Your task to perform on an android device: all mails in gmail Image 0: 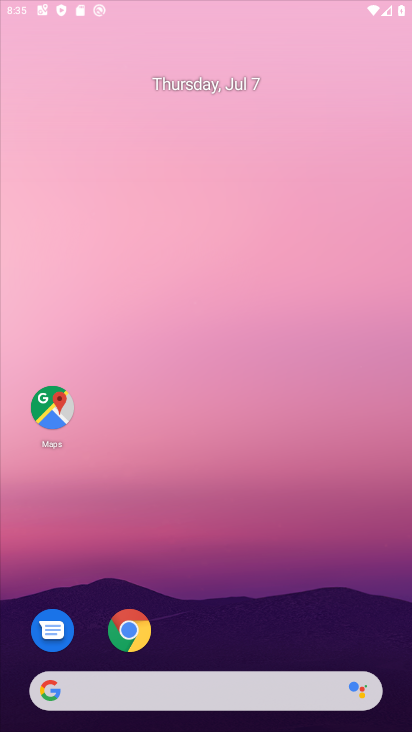
Step 0: drag from (230, 144) to (306, 181)
Your task to perform on an android device: all mails in gmail Image 1: 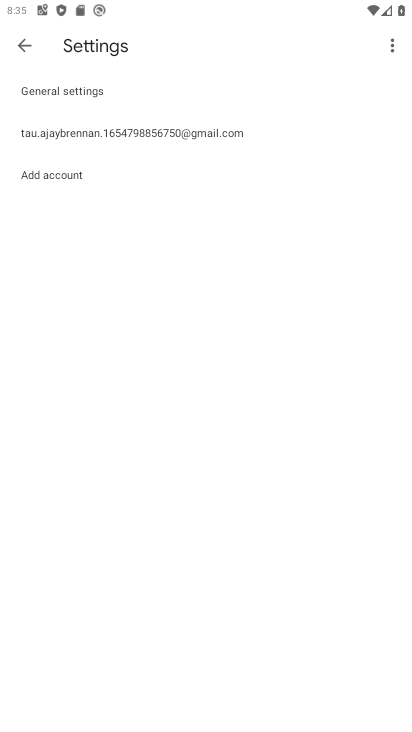
Step 1: click (32, 55)
Your task to perform on an android device: all mails in gmail Image 2: 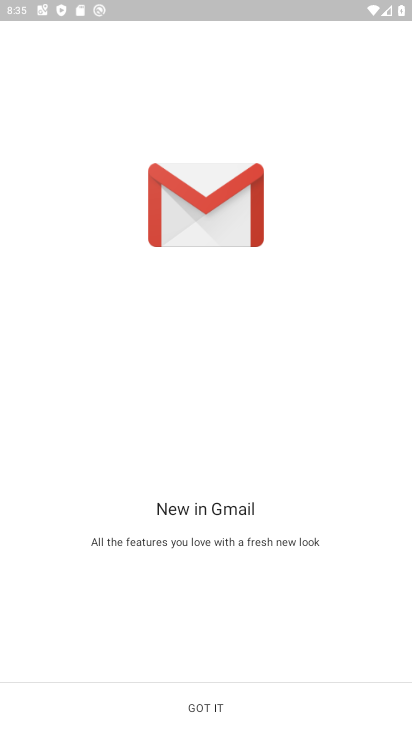
Step 2: click (220, 707)
Your task to perform on an android device: all mails in gmail Image 3: 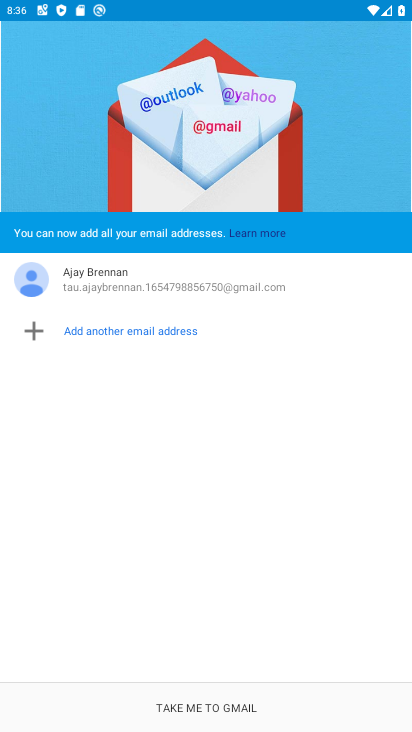
Step 3: click (184, 715)
Your task to perform on an android device: all mails in gmail Image 4: 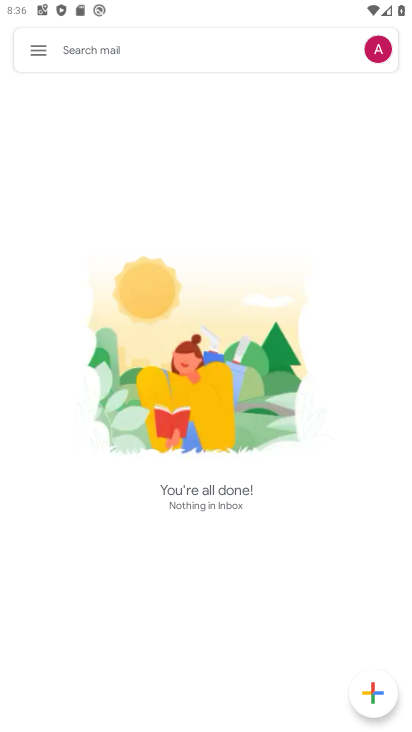
Step 4: click (25, 53)
Your task to perform on an android device: all mails in gmail Image 5: 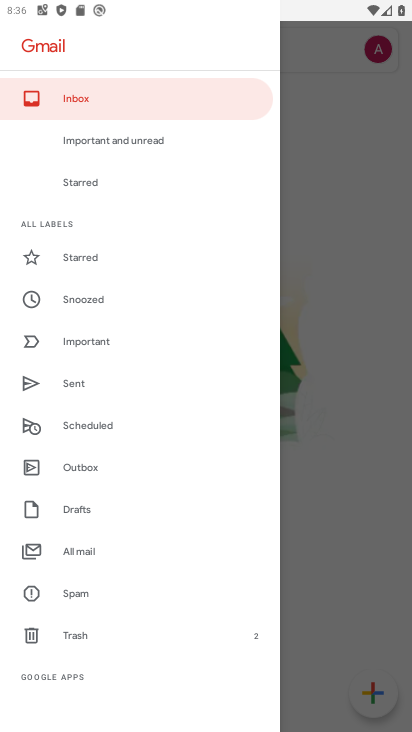
Step 5: click (71, 540)
Your task to perform on an android device: all mails in gmail Image 6: 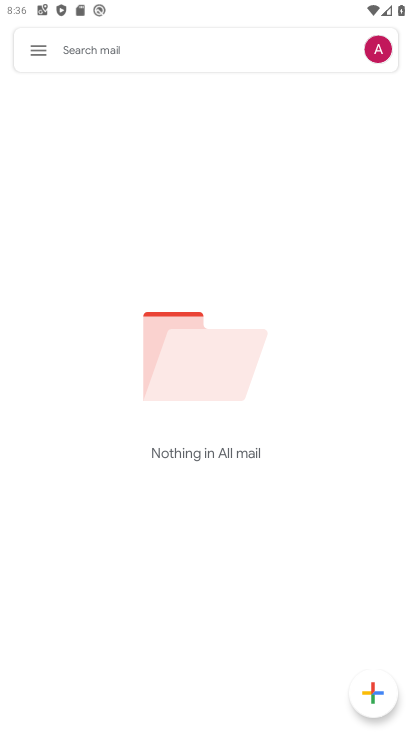
Step 6: task complete